Your task to perform on an android device: Go to display settings Image 0: 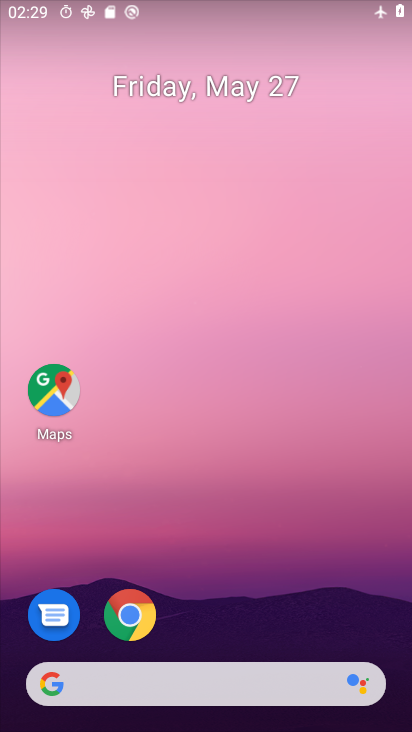
Step 0: drag from (321, 620) to (342, 139)
Your task to perform on an android device: Go to display settings Image 1: 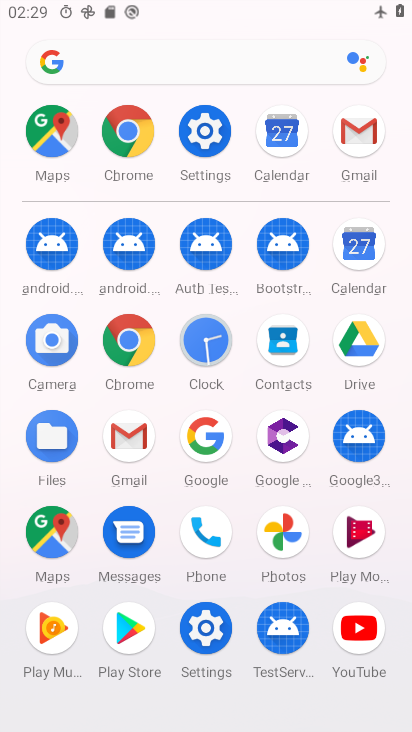
Step 1: click (196, 144)
Your task to perform on an android device: Go to display settings Image 2: 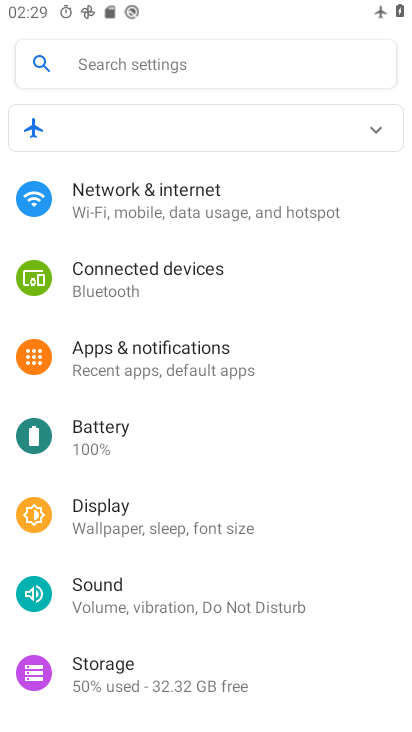
Step 2: drag from (339, 443) to (345, 344)
Your task to perform on an android device: Go to display settings Image 3: 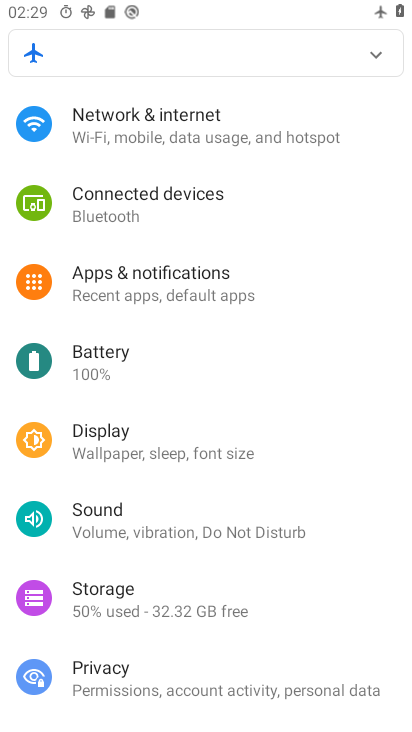
Step 3: drag from (345, 477) to (347, 358)
Your task to perform on an android device: Go to display settings Image 4: 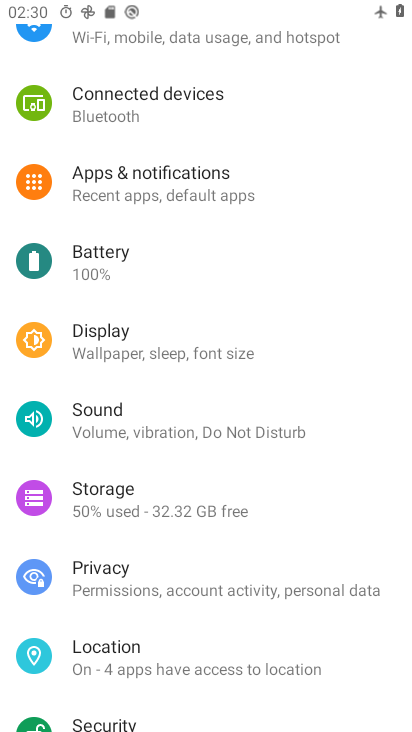
Step 4: drag from (346, 478) to (351, 383)
Your task to perform on an android device: Go to display settings Image 5: 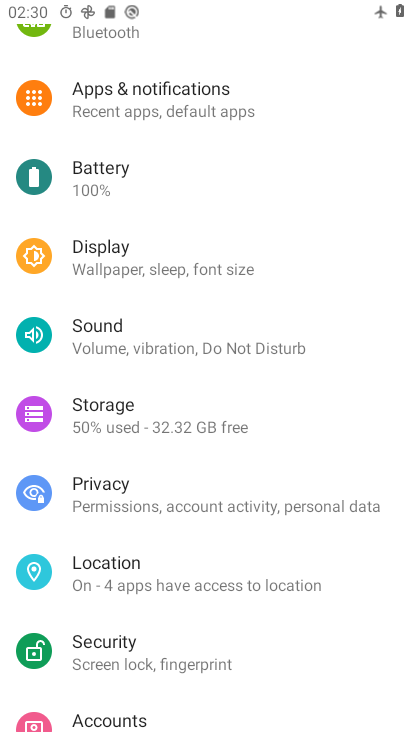
Step 5: drag from (353, 531) to (356, 450)
Your task to perform on an android device: Go to display settings Image 6: 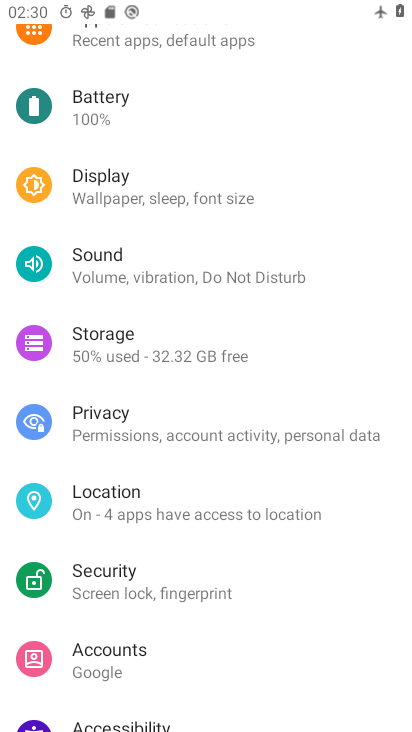
Step 6: drag from (334, 567) to (347, 471)
Your task to perform on an android device: Go to display settings Image 7: 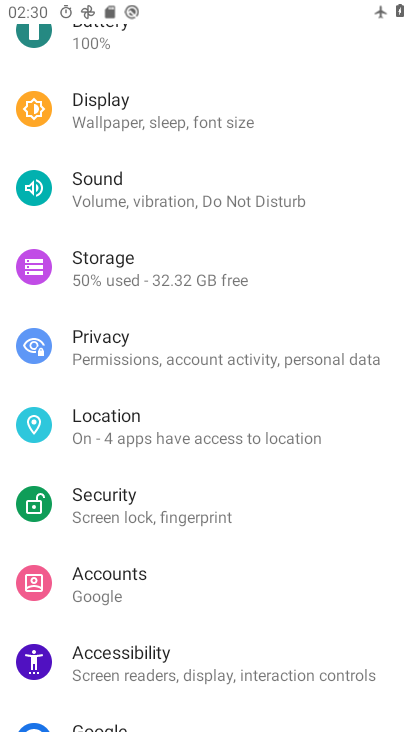
Step 7: drag from (334, 564) to (342, 471)
Your task to perform on an android device: Go to display settings Image 8: 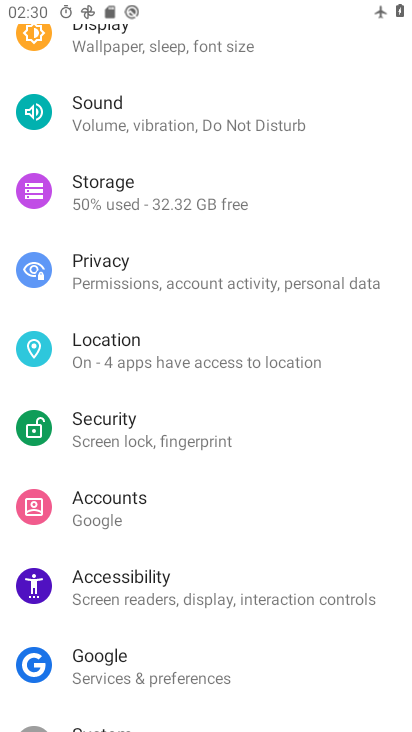
Step 8: drag from (343, 586) to (347, 482)
Your task to perform on an android device: Go to display settings Image 9: 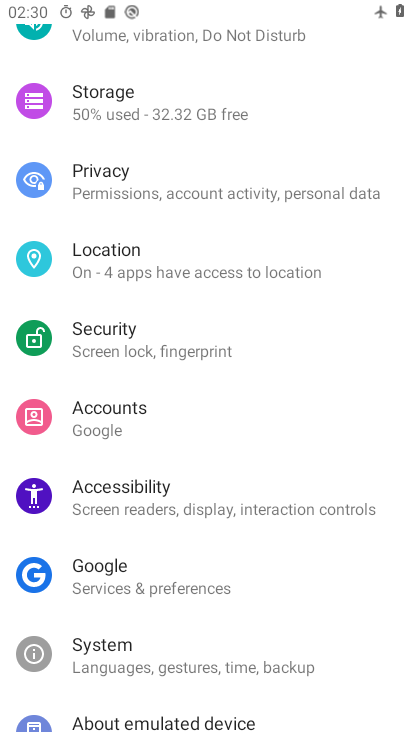
Step 9: drag from (338, 578) to (341, 483)
Your task to perform on an android device: Go to display settings Image 10: 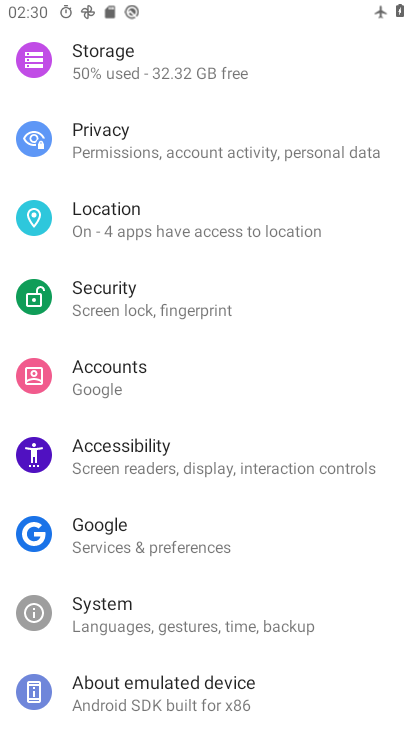
Step 10: drag from (342, 566) to (332, 423)
Your task to perform on an android device: Go to display settings Image 11: 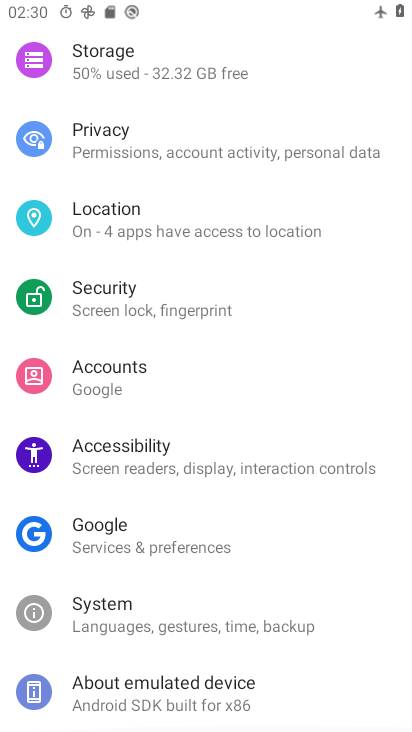
Step 11: drag from (320, 354) to (317, 468)
Your task to perform on an android device: Go to display settings Image 12: 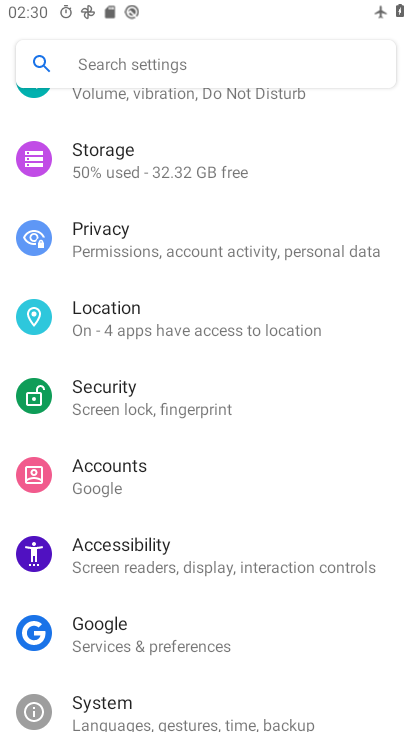
Step 12: drag from (328, 290) to (315, 455)
Your task to perform on an android device: Go to display settings Image 13: 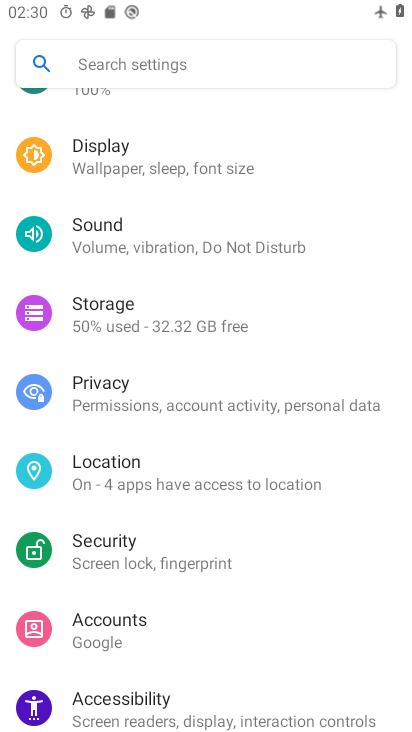
Step 13: drag from (315, 316) to (311, 446)
Your task to perform on an android device: Go to display settings Image 14: 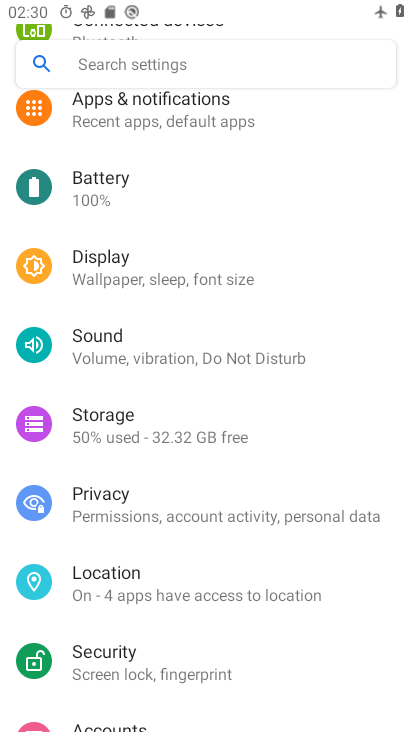
Step 14: drag from (300, 259) to (307, 399)
Your task to perform on an android device: Go to display settings Image 15: 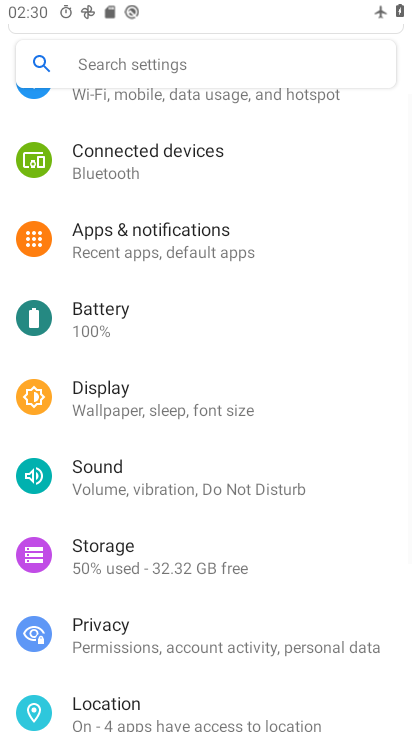
Step 15: click (213, 391)
Your task to perform on an android device: Go to display settings Image 16: 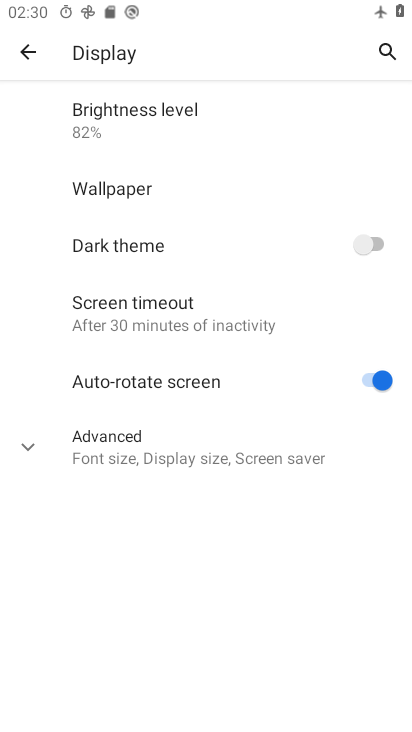
Step 16: task complete